Your task to perform on an android device: Open accessibility settings Image 0: 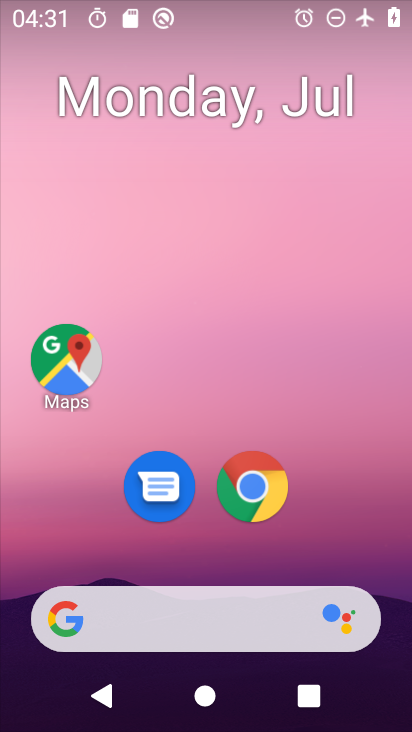
Step 0: drag from (150, 543) to (163, 12)
Your task to perform on an android device: Open accessibility settings Image 1: 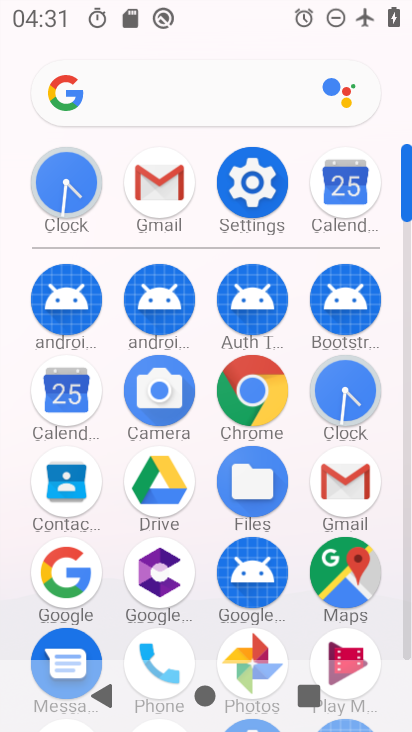
Step 1: click (268, 193)
Your task to perform on an android device: Open accessibility settings Image 2: 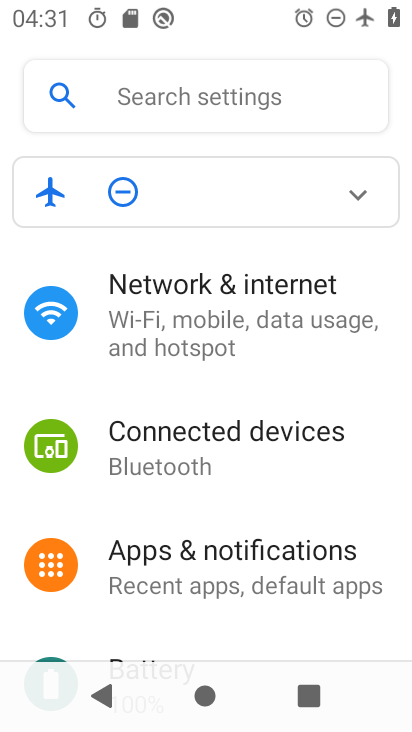
Step 2: drag from (230, 581) to (282, 11)
Your task to perform on an android device: Open accessibility settings Image 3: 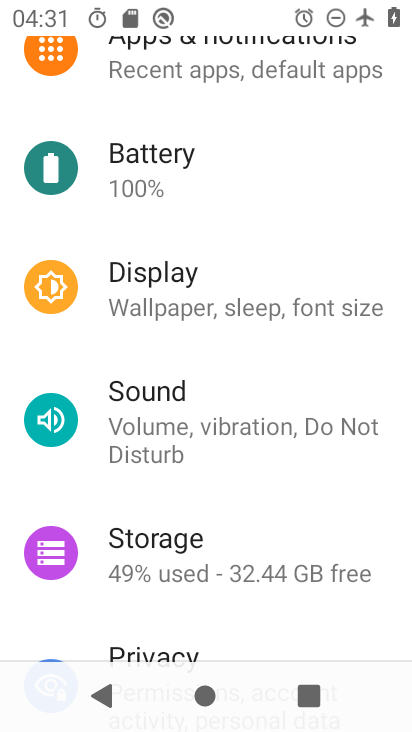
Step 3: drag from (160, 627) to (298, 74)
Your task to perform on an android device: Open accessibility settings Image 4: 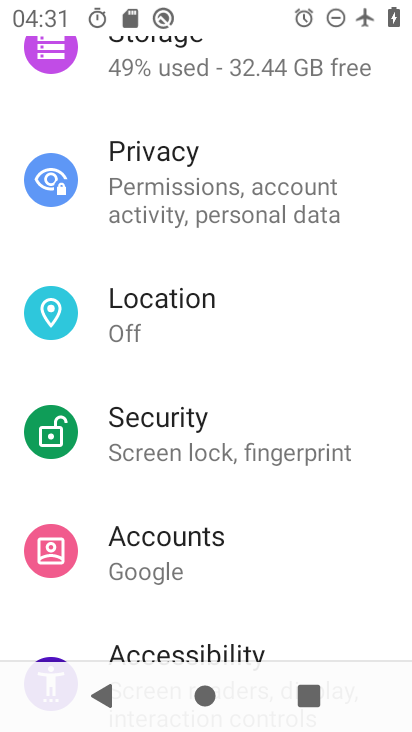
Step 4: drag from (185, 614) to (253, 249)
Your task to perform on an android device: Open accessibility settings Image 5: 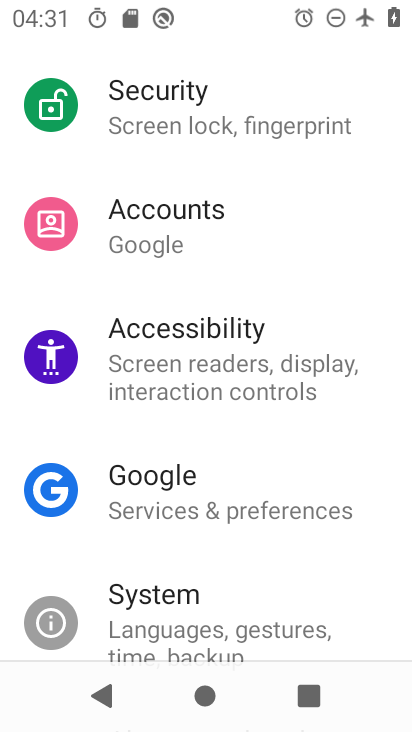
Step 5: click (177, 350)
Your task to perform on an android device: Open accessibility settings Image 6: 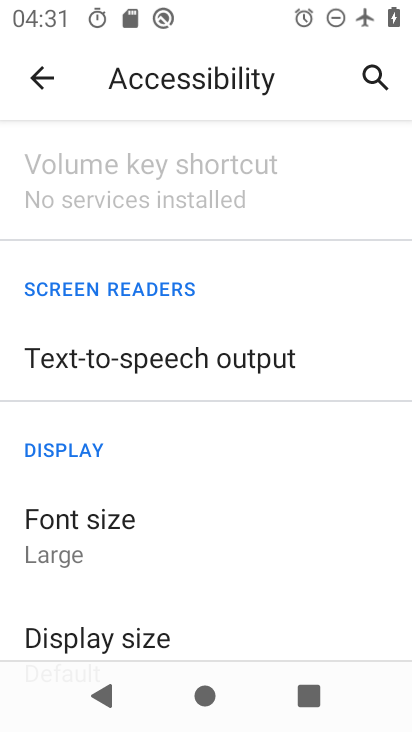
Step 6: task complete